Your task to perform on an android device: Search for vegetarian restaurants on Maps Image 0: 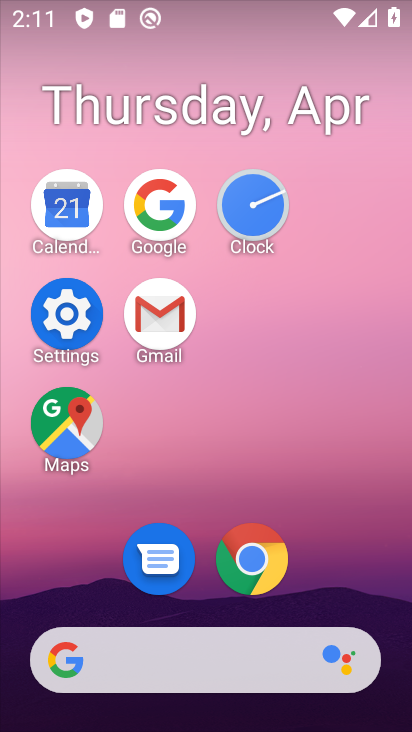
Step 0: click (88, 409)
Your task to perform on an android device: Search for vegetarian restaurants on Maps Image 1: 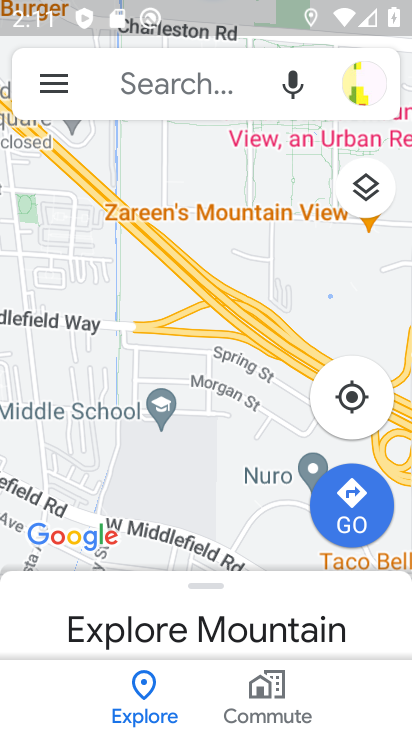
Step 1: click (164, 83)
Your task to perform on an android device: Search for vegetarian restaurants on Maps Image 2: 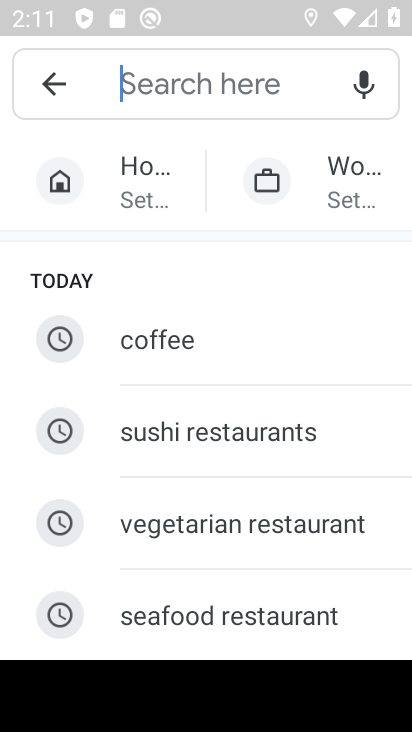
Step 2: type "vegetarian restaurants"
Your task to perform on an android device: Search for vegetarian restaurants on Maps Image 3: 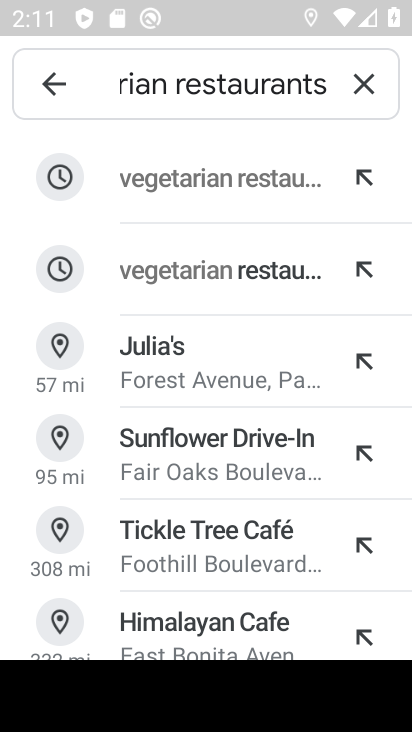
Step 3: task complete